Your task to perform on an android device: check out phone information Image 0: 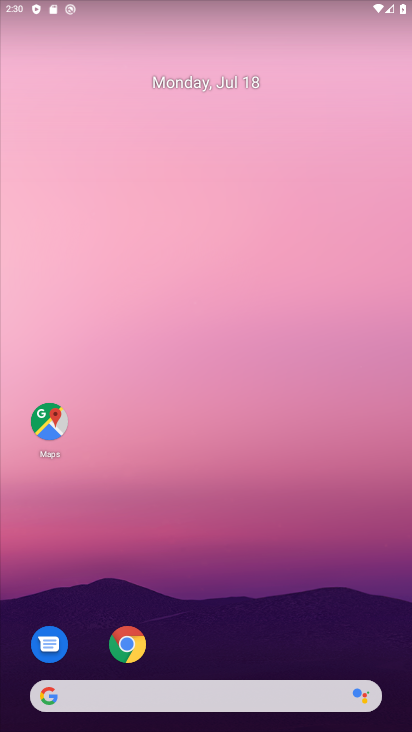
Step 0: drag from (221, 682) to (184, 217)
Your task to perform on an android device: check out phone information Image 1: 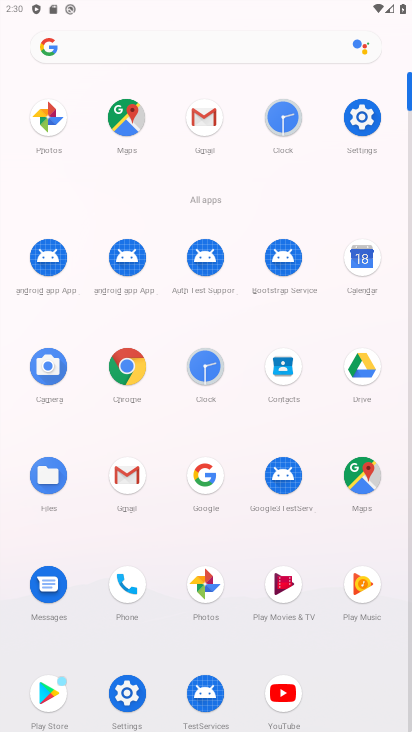
Step 1: click (358, 113)
Your task to perform on an android device: check out phone information Image 2: 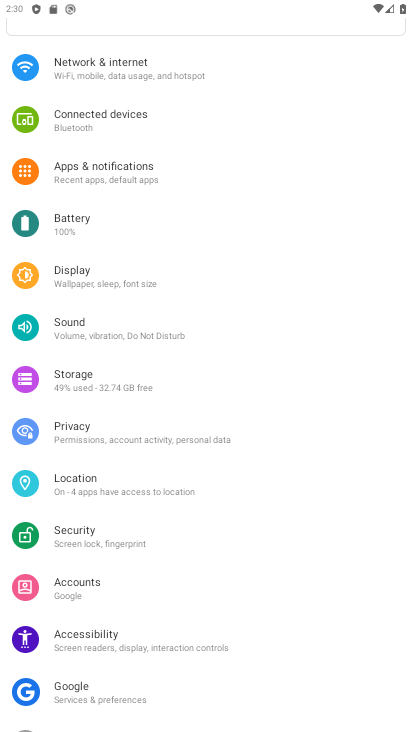
Step 2: drag from (114, 582) to (121, 2)
Your task to perform on an android device: check out phone information Image 3: 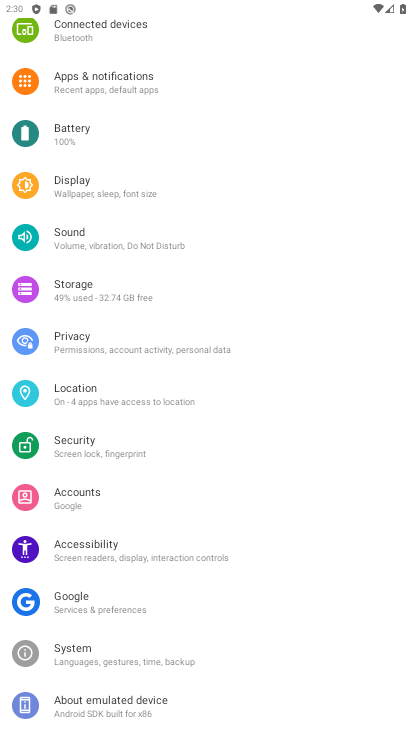
Step 3: click (142, 694)
Your task to perform on an android device: check out phone information Image 4: 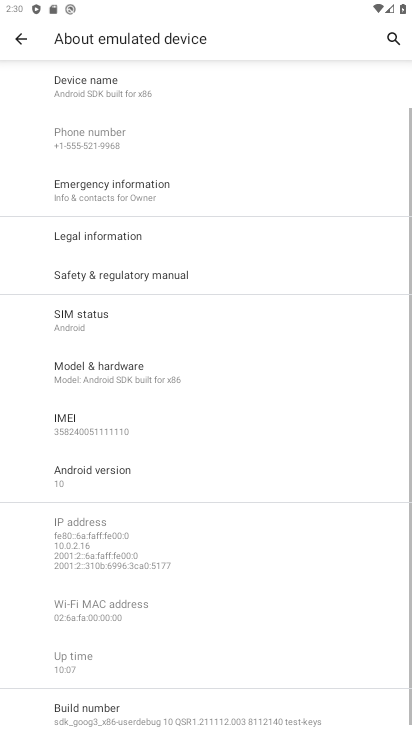
Step 4: task complete